Your task to perform on an android device: Search for the new nintendo switch on Walmart. Image 0: 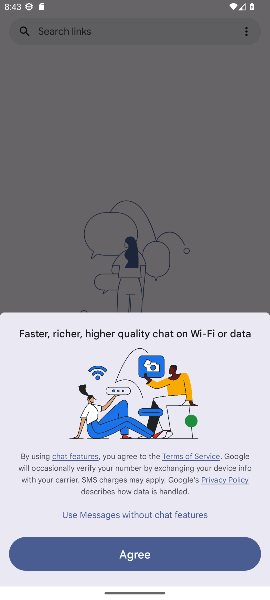
Step 0: press home button
Your task to perform on an android device: Search for the new nintendo switch on Walmart. Image 1: 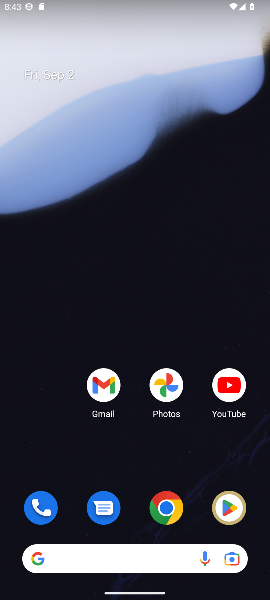
Step 1: click (168, 508)
Your task to perform on an android device: Search for the new nintendo switch on Walmart. Image 2: 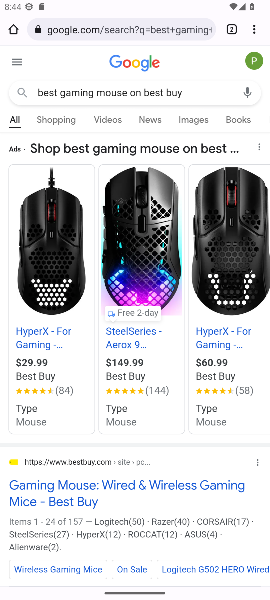
Step 2: click (108, 25)
Your task to perform on an android device: Search for the new nintendo switch on Walmart. Image 3: 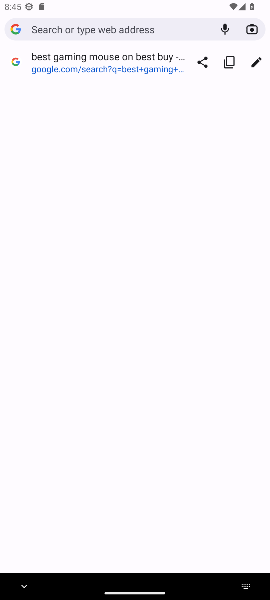
Step 3: type "nintendo switch on walmart"
Your task to perform on an android device: Search for the new nintendo switch on Walmart. Image 4: 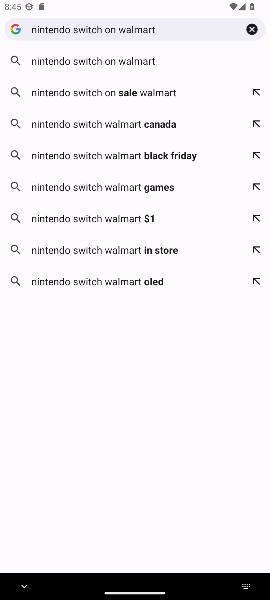
Step 4: click (112, 57)
Your task to perform on an android device: Search for the new nintendo switch on Walmart. Image 5: 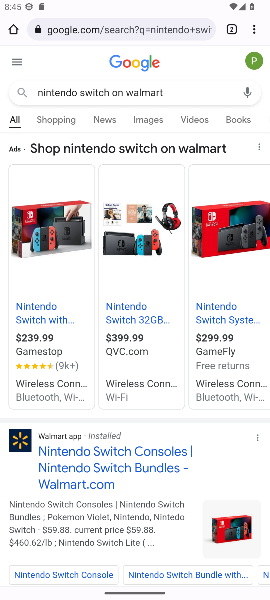
Step 5: task complete